Your task to perform on an android device: Clear all items from cart on newegg. Image 0: 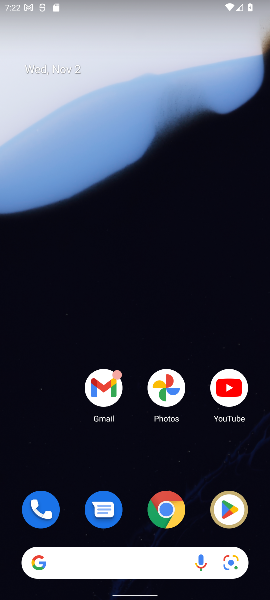
Step 0: click (134, 560)
Your task to perform on an android device: Clear all items from cart on newegg. Image 1: 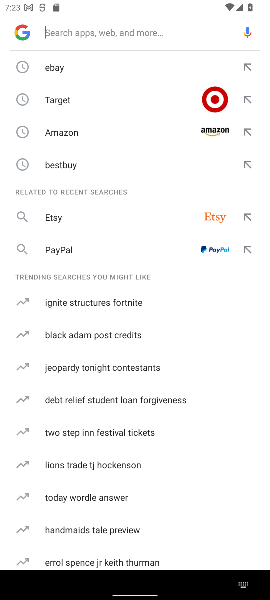
Step 1: type "newegg"
Your task to perform on an android device: Clear all items from cart on newegg. Image 2: 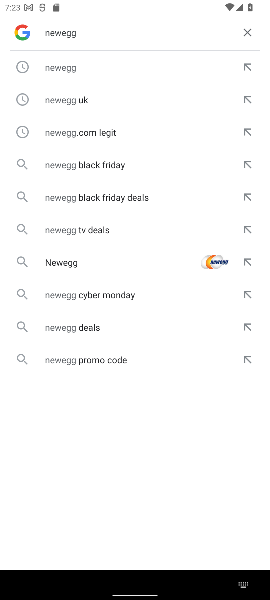
Step 2: click (58, 67)
Your task to perform on an android device: Clear all items from cart on newegg. Image 3: 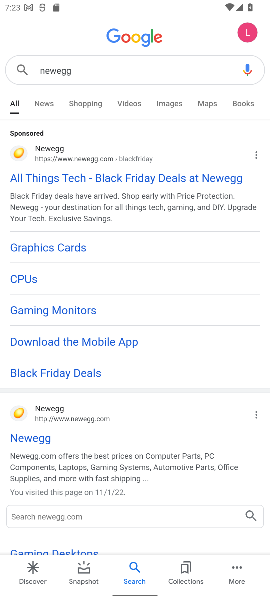
Step 3: click (23, 428)
Your task to perform on an android device: Clear all items from cart on newegg. Image 4: 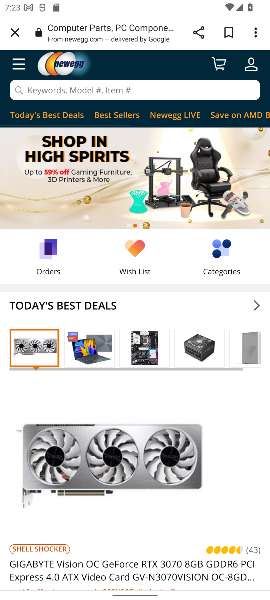
Step 4: click (220, 60)
Your task to perform on an android device: Clear all items from cart on newegg. Image 5: 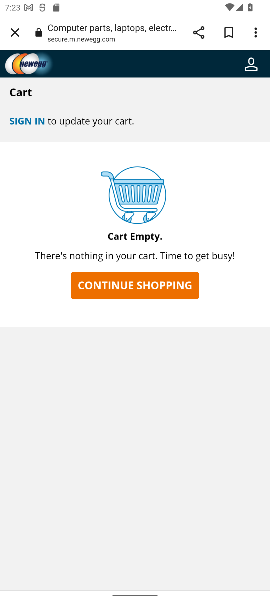
Step 5: task complete